Your task to perform on an android device: Open Google Chrome and click the shortcut for Amazon.com Image 0: 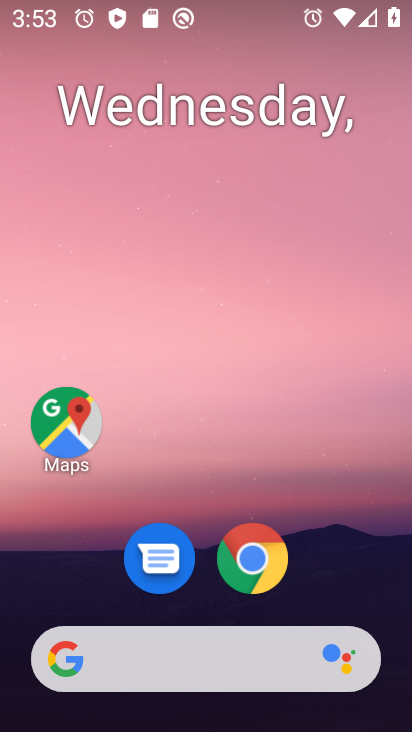
Step 0: drag from (74, 620) to (74, 449)
Your task to perform on an android device: Open Google Chrome and click the shortcut for Amazon.com Image 1: 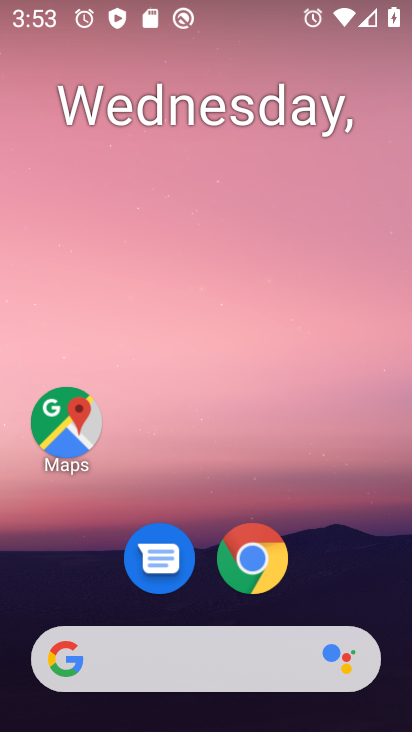
Step 1: click (251, 575)
Your task to perform on an android device: Open Google Chrome and click the shortcut for Amazon.com Image 2: 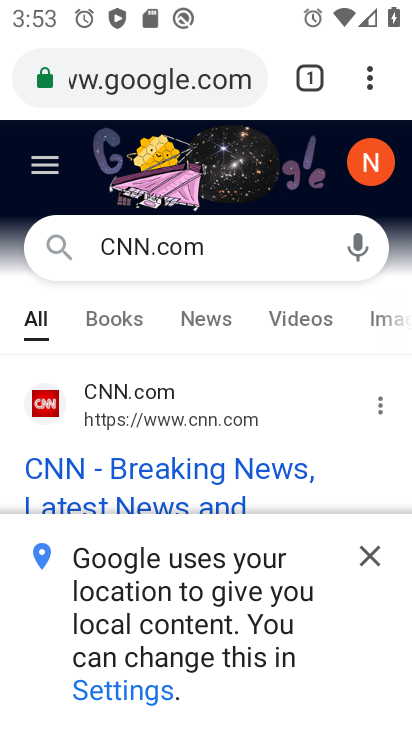
Step 2: click (308, 82)
Your task to perform on an android device: Open Google Chrome and click the shortcut for Amazon.com Image 3: 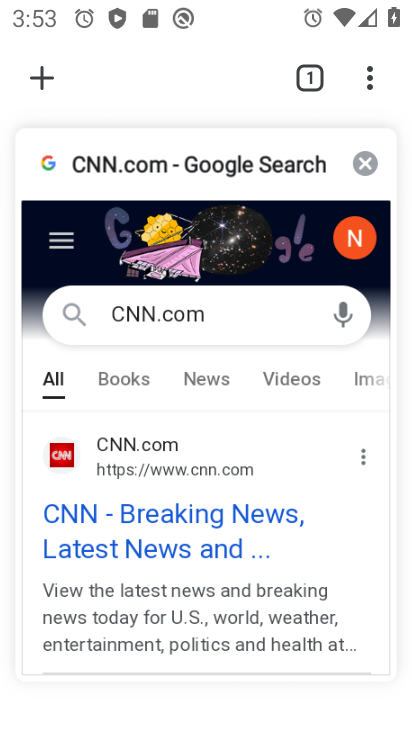
Step 3: click (358, 168)
Your task to perform on an android device: Open Google Chrome and click the shortcut for Amazon.com Image 4: 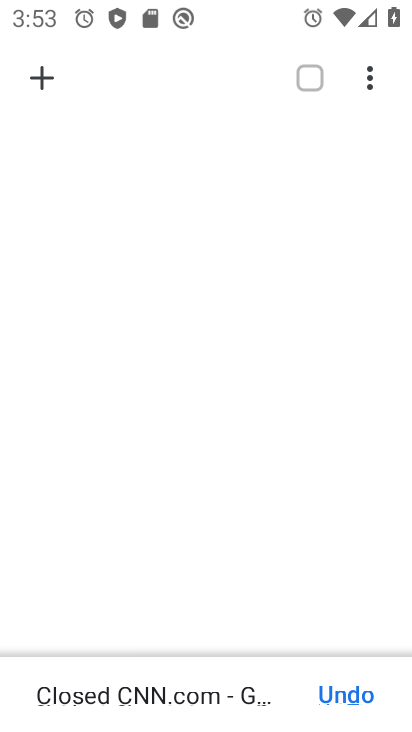
Step 4: click (38, 79)
Your task to perform on an android device: Open Google Chrome and click the shortcut for Amazon.com Image 5: 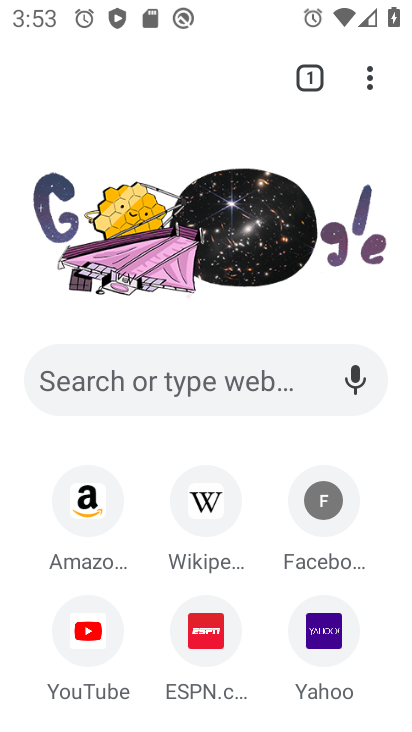
Step 5: click (78, 499)
Your task to perform on an android device: Open Google Chrome and click the shortcut for Amazon.com Image 6: 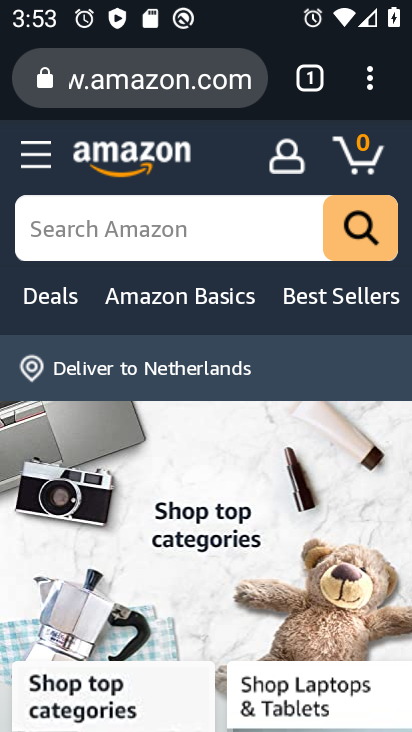
Step 6: task complete